Your task to perform on an android device: What is the news today? Image 0: 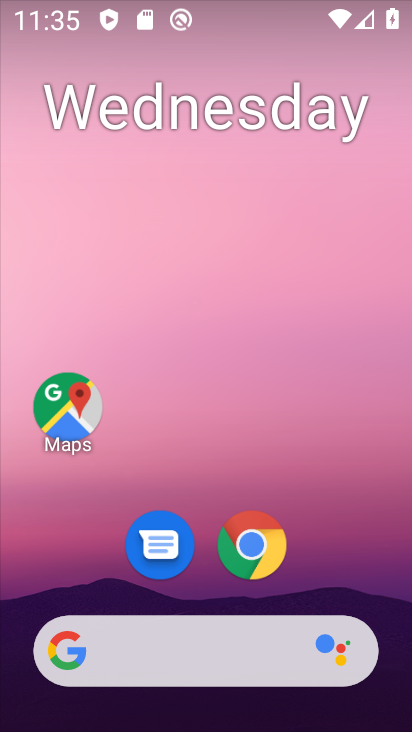
Step 0: drag from (58, 335) to (407, 373)
Your task to perform on an android device: What is the news today? Image 1: 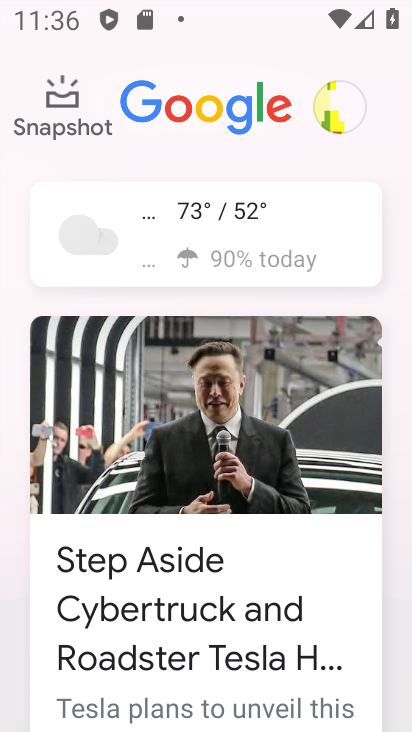
Step 1: task complete